Your task to perform on an android device: Open calendar and show me the second week of next month Image 0: 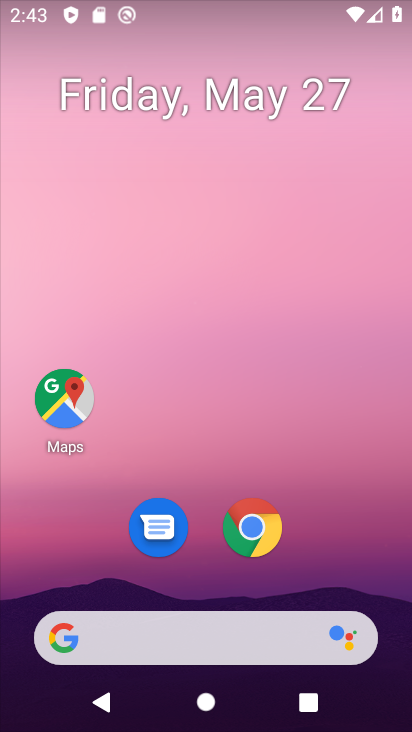
Step 0: drag from (185, 694) to (173, 79)
Your task to perform on an android device: Open calendar and show me the second week of next month Image 1: 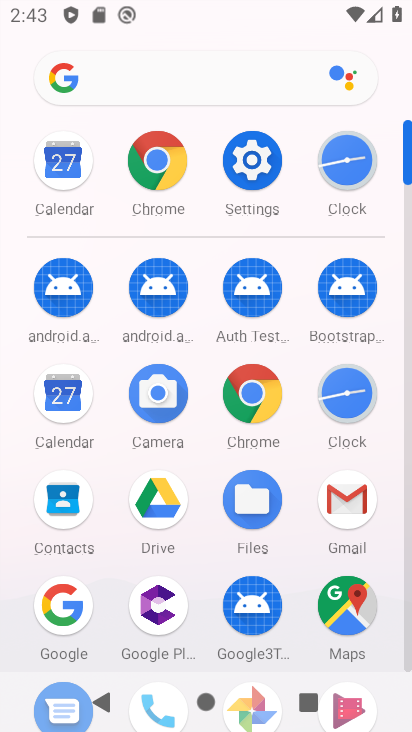
Step 1: click (39, 397)
Your task to perform on an android device: Open calendar and show me the second week of next month Image 2: 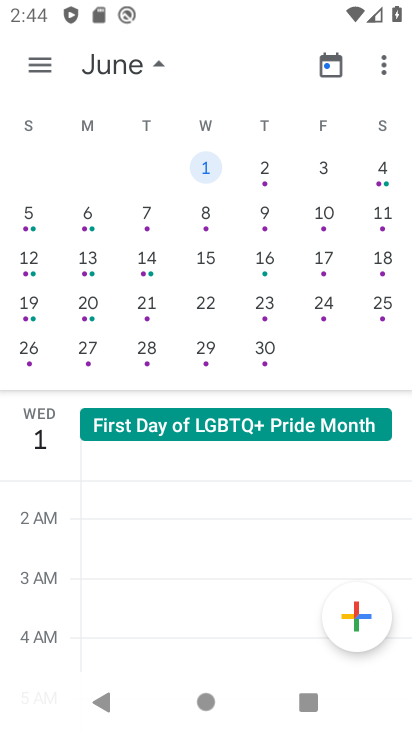
Step 2: click (33, 218)
Your task to perform on an android device: Open calendar and show me the second week of next month Image 3: 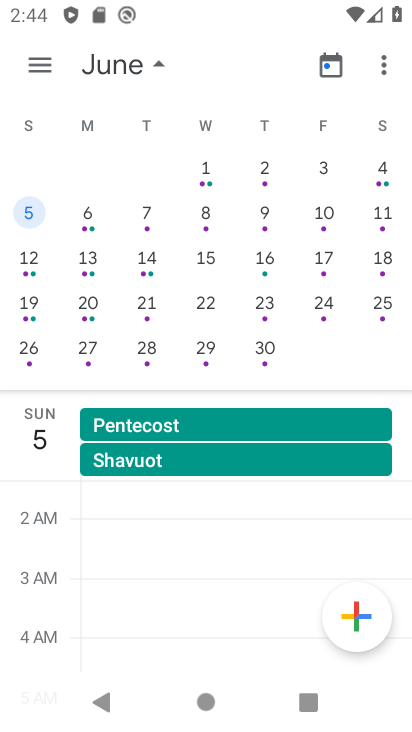
Step 3: task complete